Your task to perform on an android device: turn off notifications in google photos Image 0: 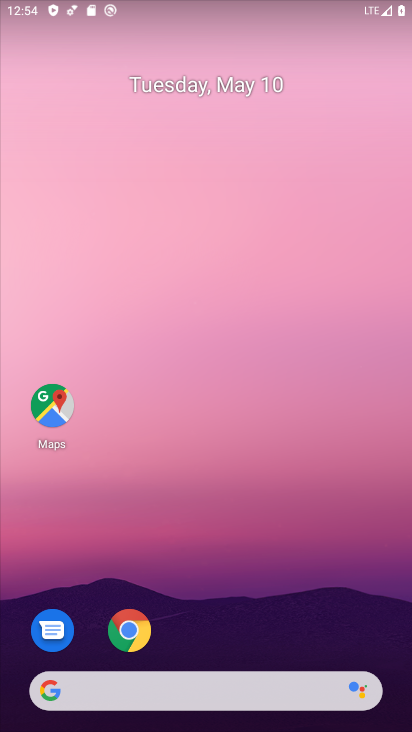
Step 0: drag from (218, 663) to (121, 5)
Your task to perform on an android device: turn off notifications in google photos Image 1: 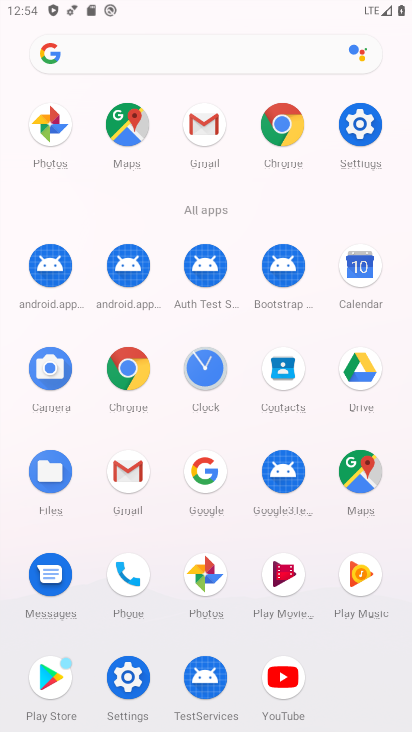
Step 1: click (225, 572)
Your task to perform on an android device: turn off notifications in google photos Image 2: 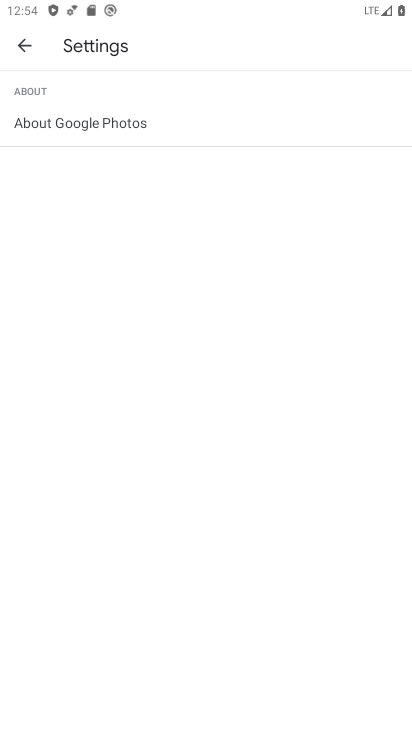
Step 2: click (21, 35)
Your task to perform on an android device: turn off notifications in google photos Image 3: 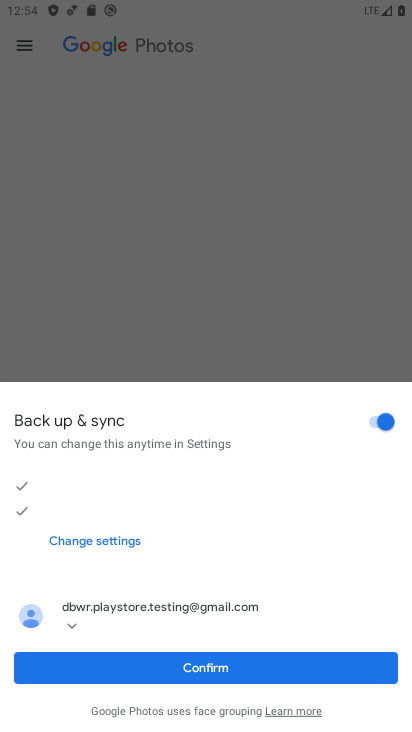
Step 3: click (20, 47)
Your task to perform on an android device: turn off notifications in google photos Image 4: 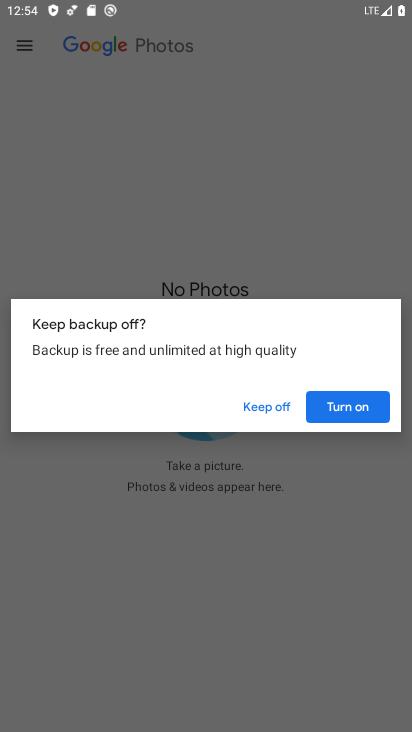
Step 4: click (271, 406)
Your task to perform on an android device: turn off notifications in google photos Image 5: 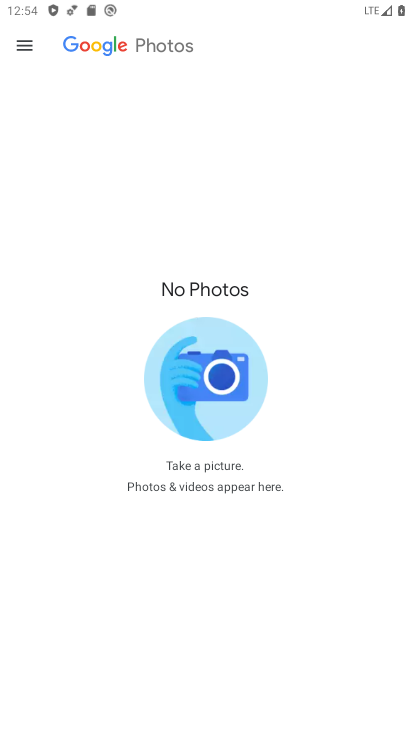
Step 5: click (18, 36)
Your task to perform on an android device: turn off notifications in google photos Image 6: 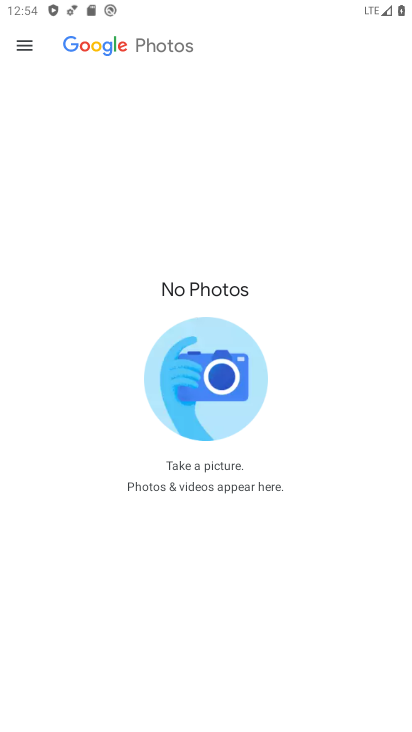
Step 6: click (22, 44)
Your task to perform on an android device: turn off notifications in google photos Image 7: 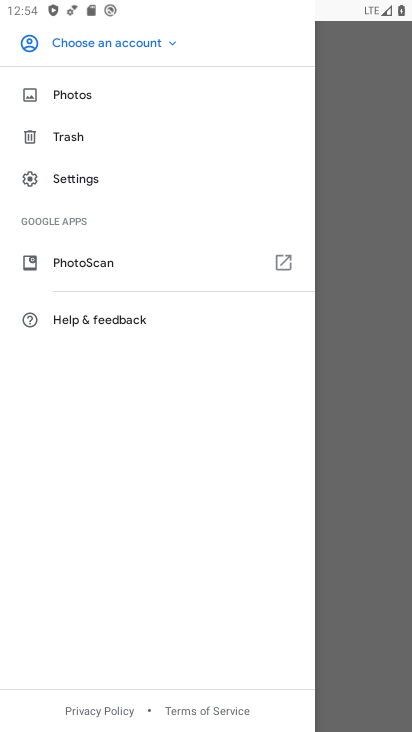
Step 7: click (56, 188)
Your task to perform on an android device: turn off notifications in google photos Image 8: 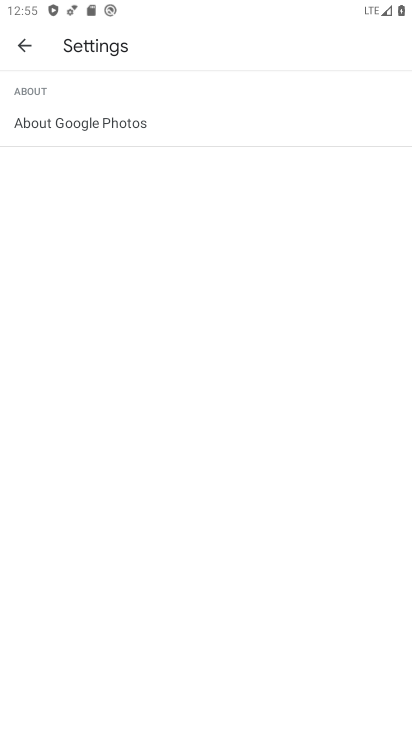
Step 8: click (22, 42)
Your task to perform on an android device: turn off notifications in google photos Image 9: 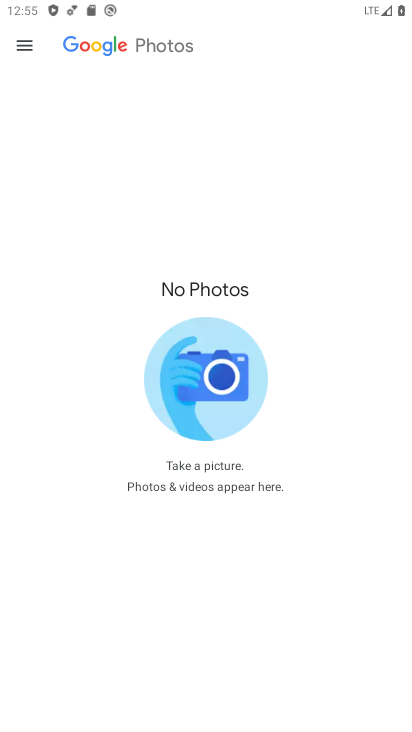
Step 9: click (22, 42)
Your task to perform on an android device: turn off notifications in google photos Image 10: 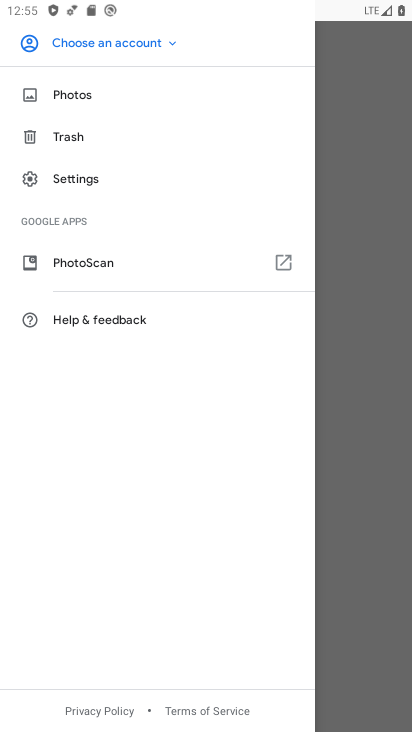
Step 10: click (62, 53)
Your task to perform on an android device: turn off notifications in google photos Image 11: 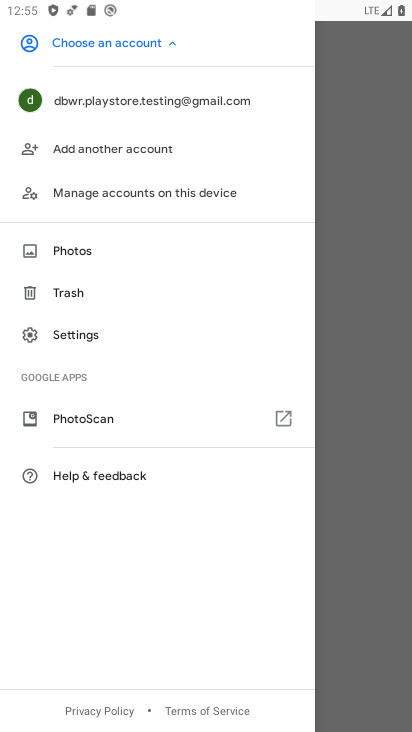
Step 11: click (109, 101)
Your task to perform on an android device: turn off notifications in google photos Image 12: 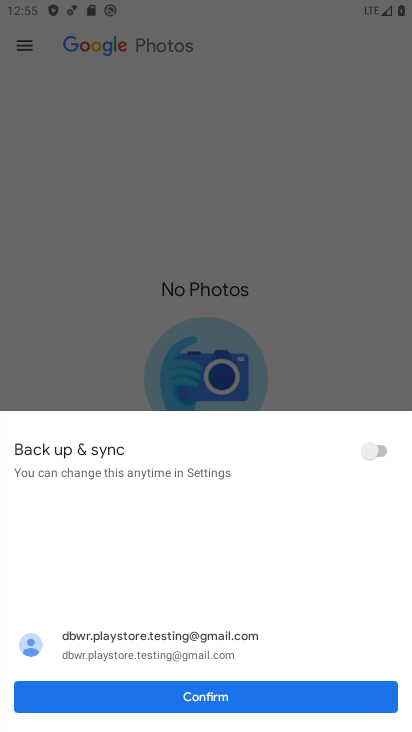
Step 12: click (118, 696)
Your task to perform on an android device: turn off notifications in google photos Image 13: 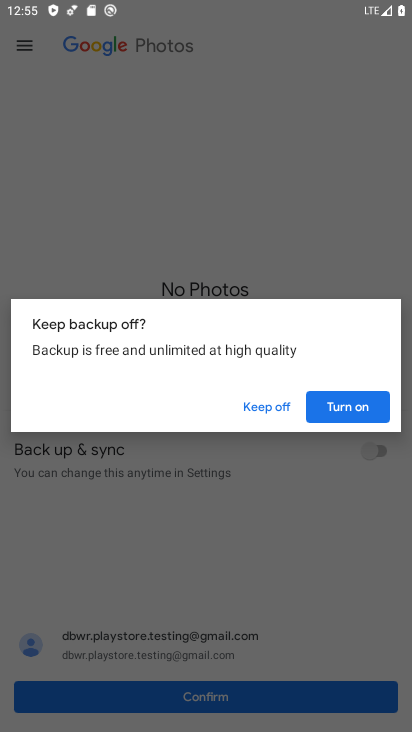
Step 13: click (357, 396)
Your task to perform on an android device: turn off notifications in google photos Image 14: 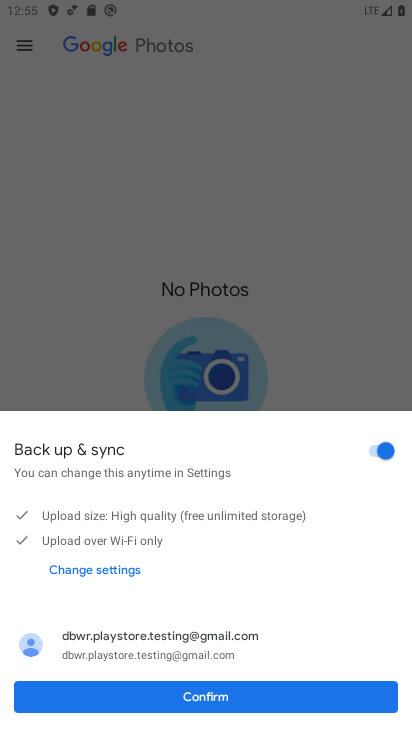
Step 14: click (232, 699)
Your task to perform on an android device: turn off notifications in google photos Image 15: 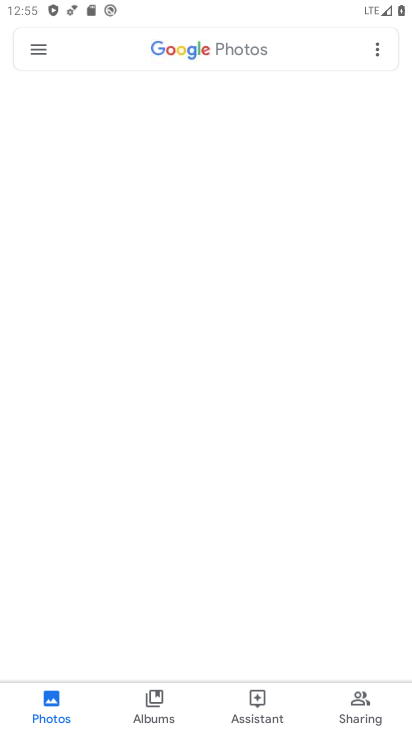
Step 15: click (24, 46)
Your task to perform on an android device: turn off notifications in google photos Image 16: 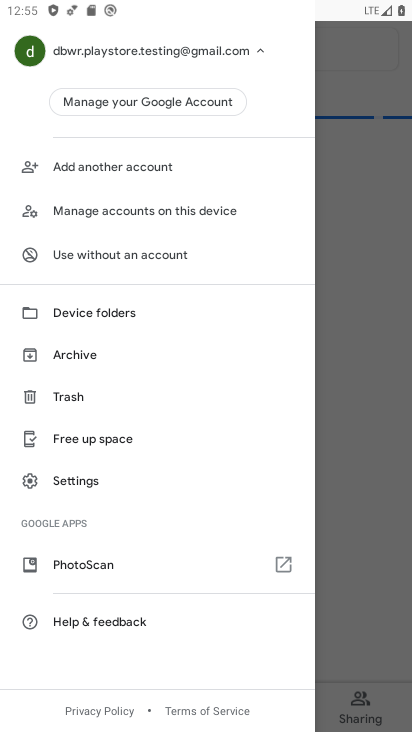
Step 16: click (100, 487)
Your task to perform on an android device: turn off notifications in google photos Image 17: 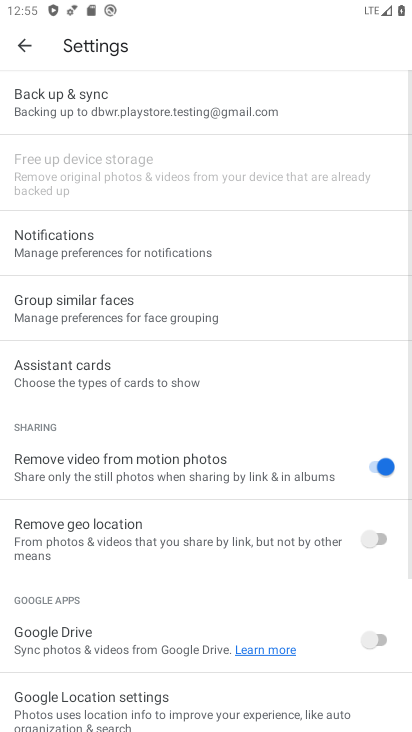
Step 17: click (90, 264)
Your task to perform on an android device: turn off notifications in google photos Image 18: 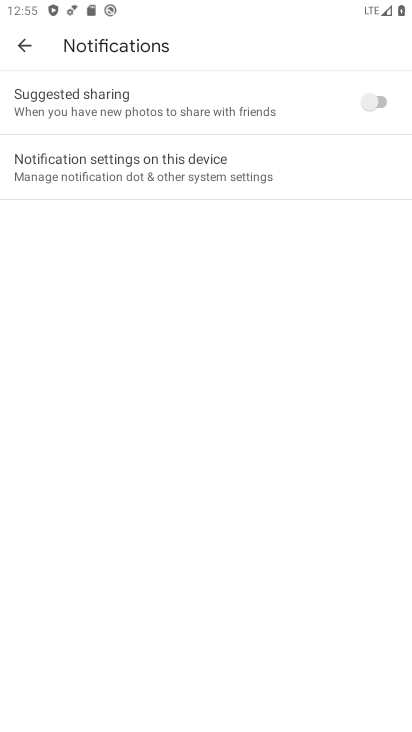
Step 18: click (183, 185)
Your task to perform on an android device: turn off notifications in google photos Image 19: 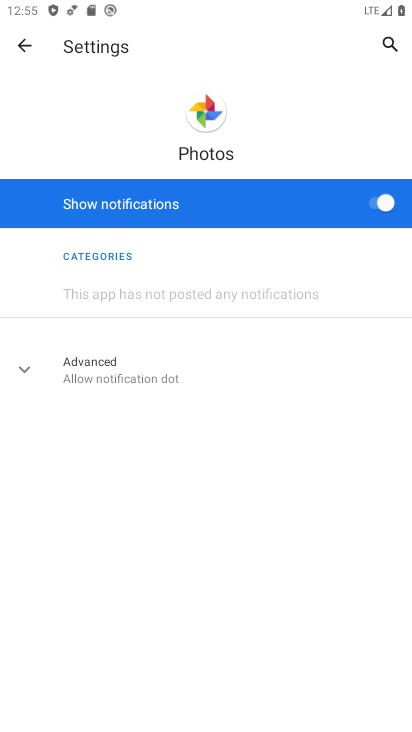
Step 19: click (378, 215)
Your task to perform on an android device: turn off notifications in google photos Image 20: 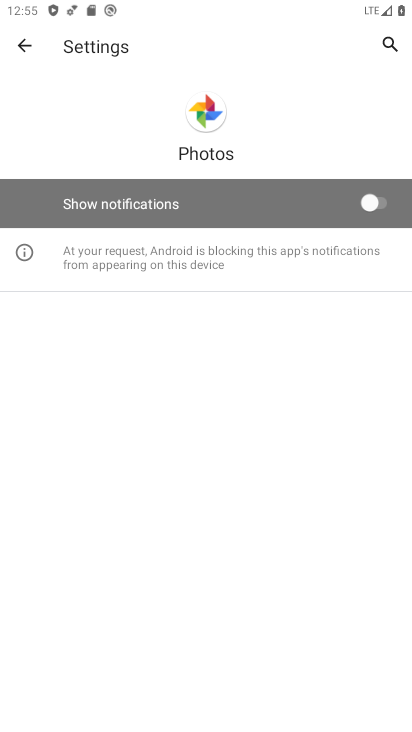
Step 20: task complete